Your task to perform on an android device: What is the news today? Image 0: 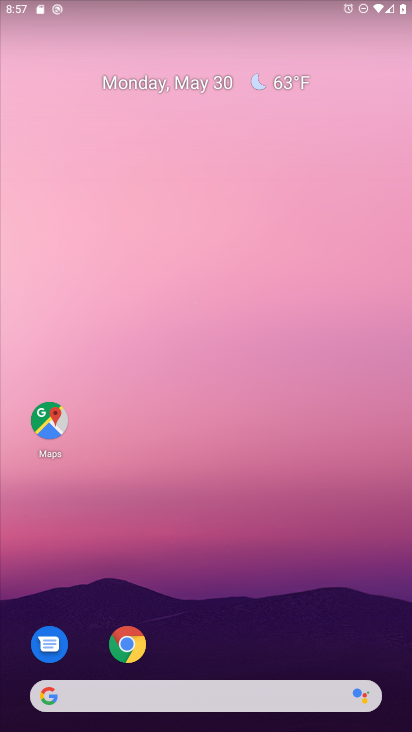
Step 0: drag from (195, 627) to (202, 80)
Your task to perform on an android device: What is the news today? Image 1: 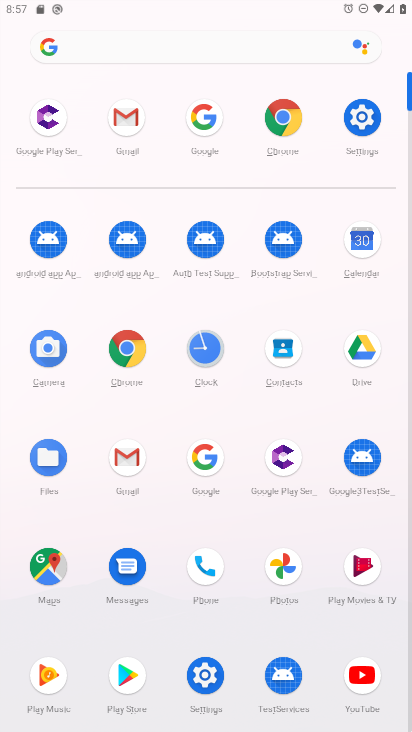
Step 1: click (199, 122)
Your task to perform on an android device: What is the news today? Image 2: 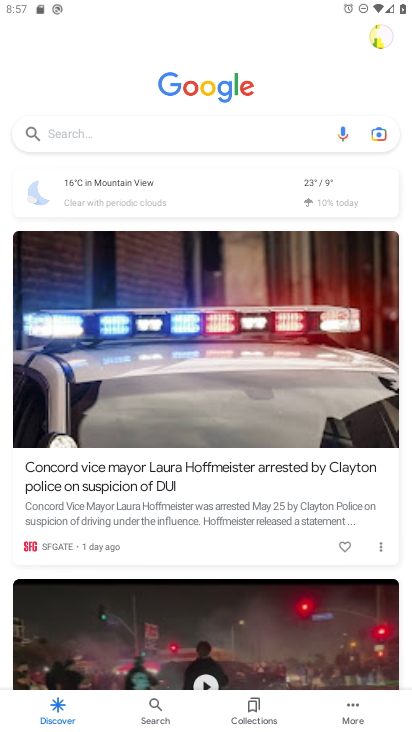
Step 2: click (188, 126)
Your task to perform on an android device: What is the news today? Image 3: 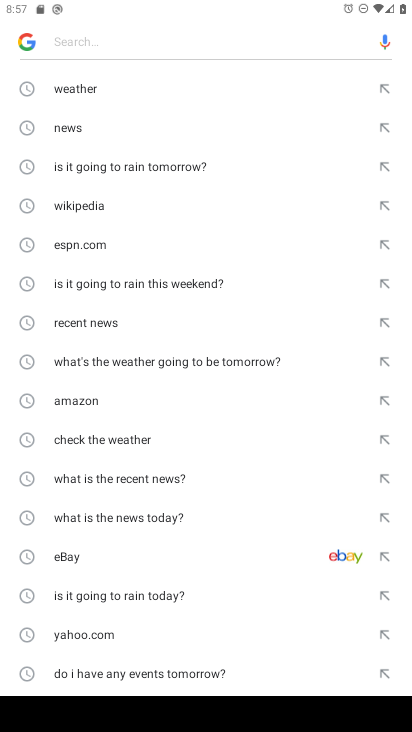
Step 3: click (85, 129)
Your task to perform on an android device: What is the news today? Image 4: 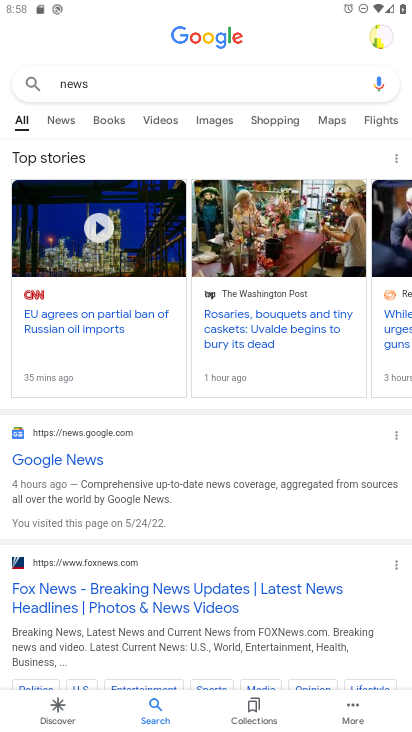
Step 4: task complete